Your task to perform on an android device: What is the news today? Image 0: 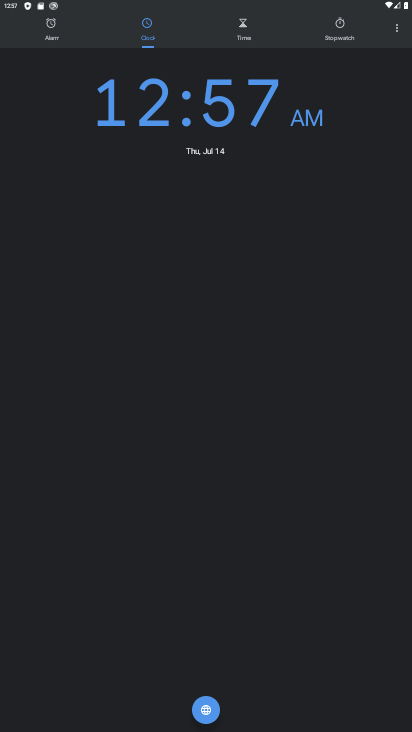
Step 0: press home button
Your task to perform on an android device: What is the news today? Image 1: 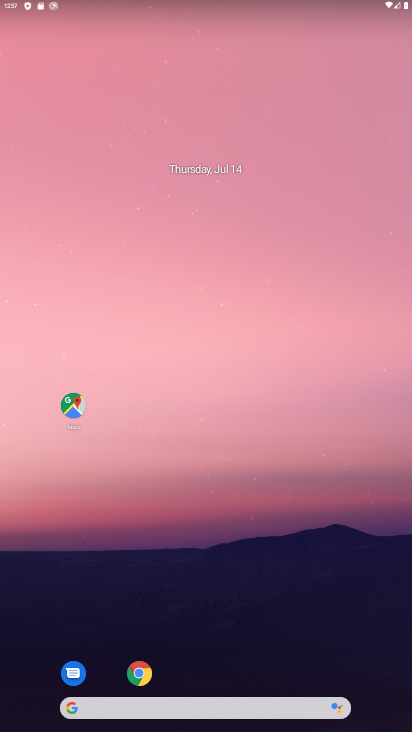
Step 1: task complete